Your task to perform on an android device: turn off smart reply in the gmail app Image 0: 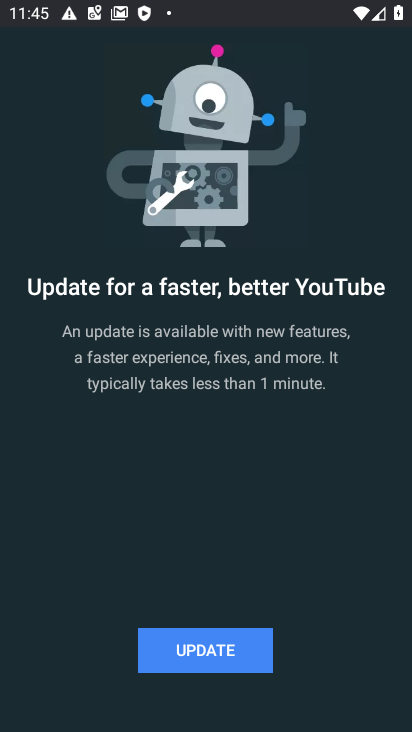
Step 0: press home button
Your task to perform on an android device: turn off smart reply in the gmail app Image 1: 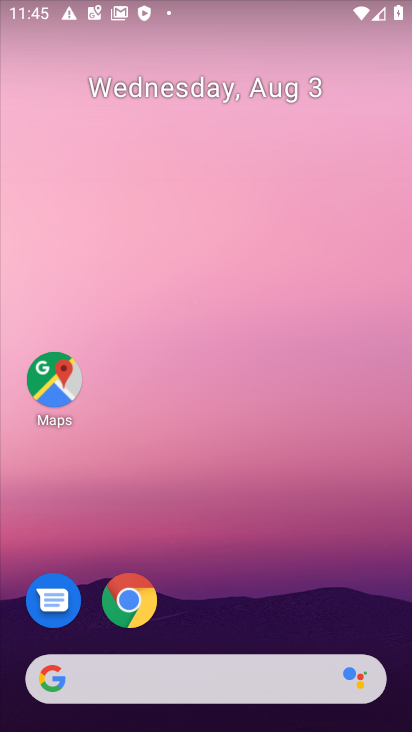
Step 1: drag from (171, 673) to (254, 313)
Your task to perform on an android device: turn off smart reply in the gmail app Image 2: 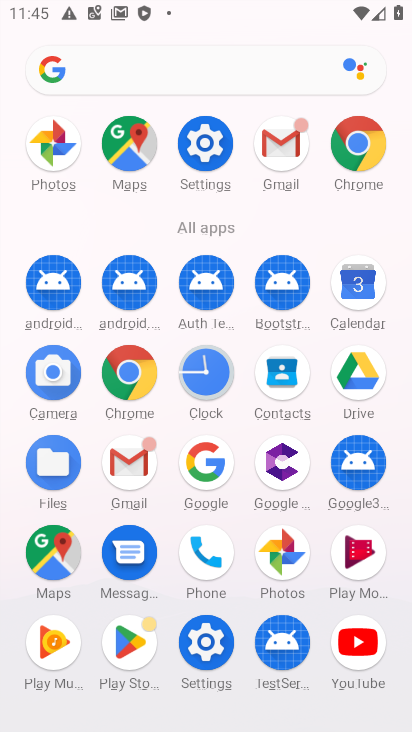
Step 2: click (283, 149)
Your task to perform on an android device: turn off smart reply in the gmail app Image 3: 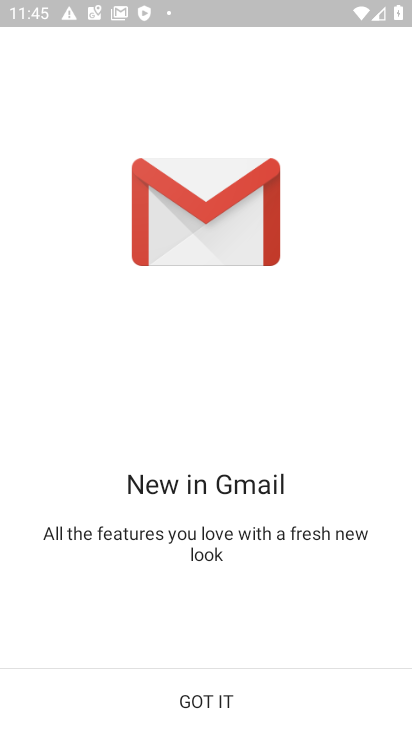
Step 3: click (198, 693)
Your task to perform on an android device: turn off smart reply in the gmail app Image 4: 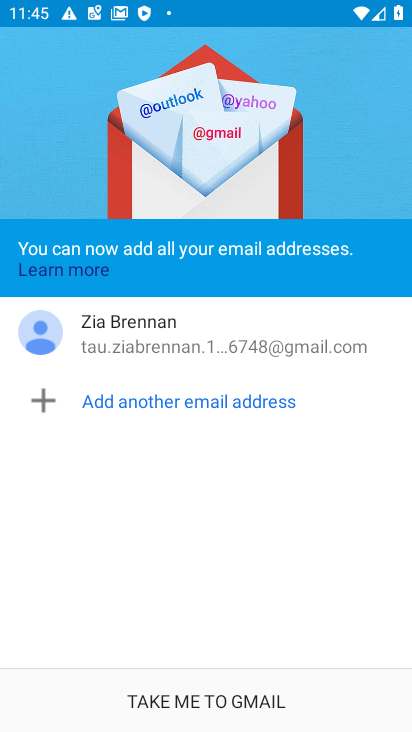
Step 4: click (188, 703)
Your task to perform on an android device: turn off smart reply in the gmail app Image 5: 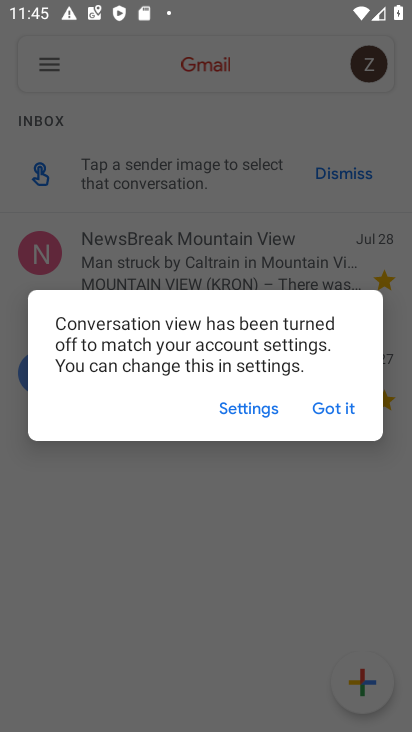
Step 5: click (312, 407)
Your task to perform on an android device: turn off smart reply in the gmail app Image 6: 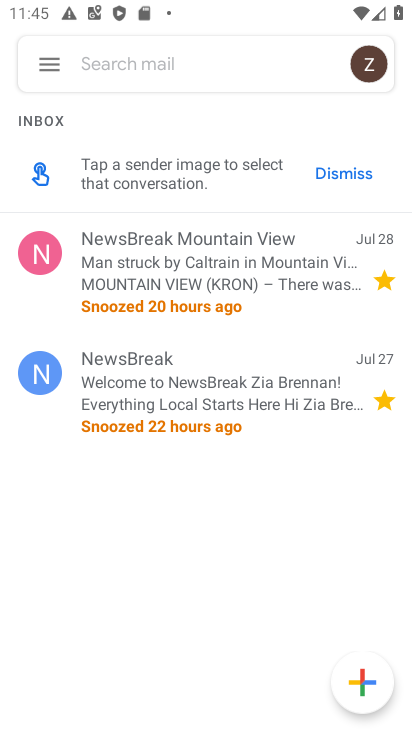
Step 6: click (41, 67)
Your task to perform on an android device: turn off smart reply in the gmail app Image 7: 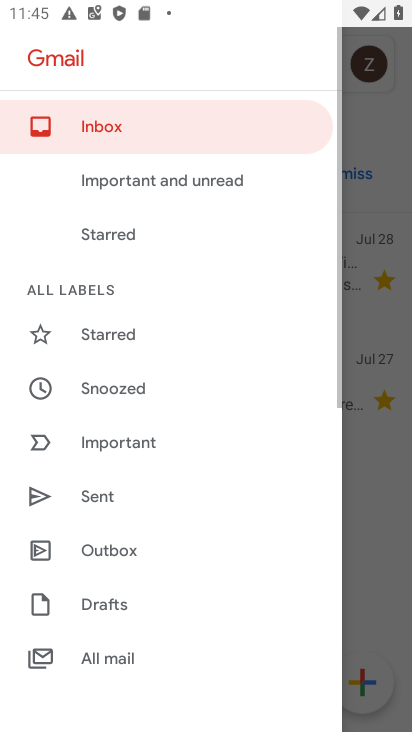
Step 7: drag from (184, 617) to (271, 143)
Your task to perform on an android device: turn off smart reply in the gmail app Image 8: 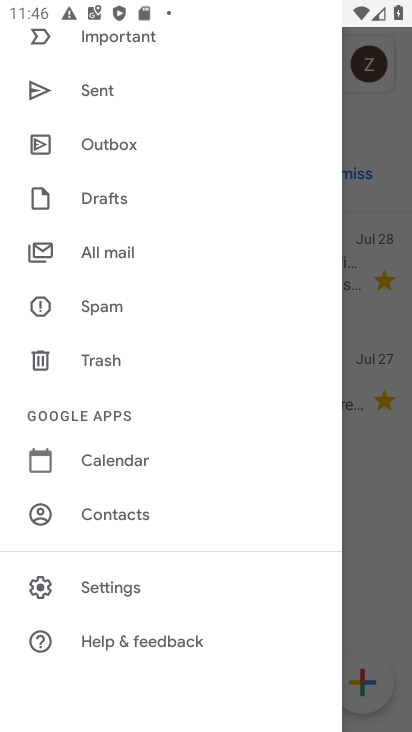
Step 8: click (134, 587)
Your task to perform on an android device: turn off smart reply in the gmail app Image 9: 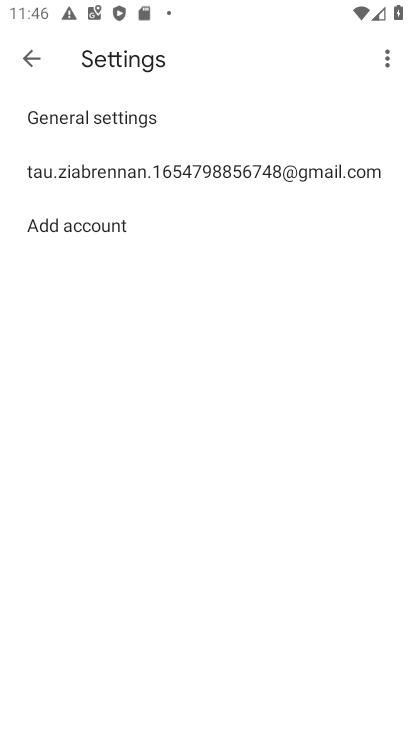
Step 9: click (279, 167)
Your task to perform on an android device: turn off smart reply in the gmail app Image 10: 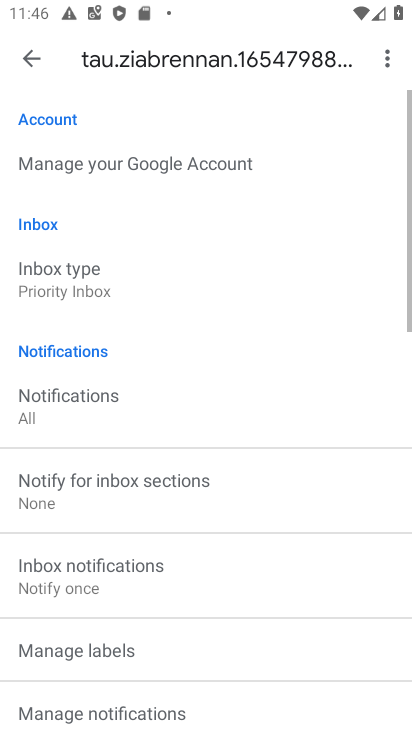
Step 10: drag from (188, 666) to (289, 132)
Your task to perform on an android device: turn off smart reply in the gmail app Image 11: 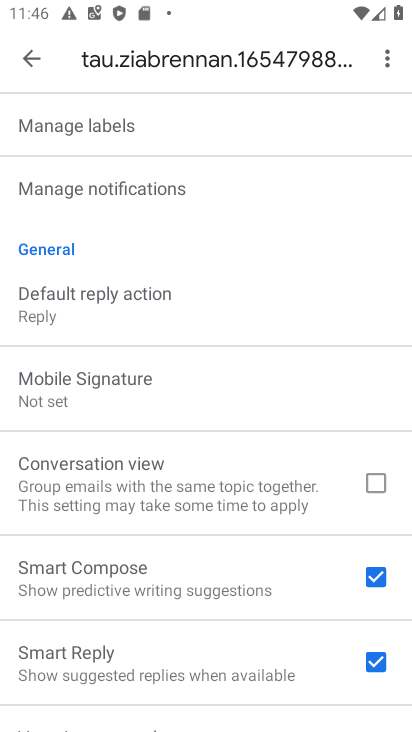
Step 11: drag from (222, 638) to (319, 190)
Your task to perform on an android device: turn off smart reply in the gmail app Image 12: 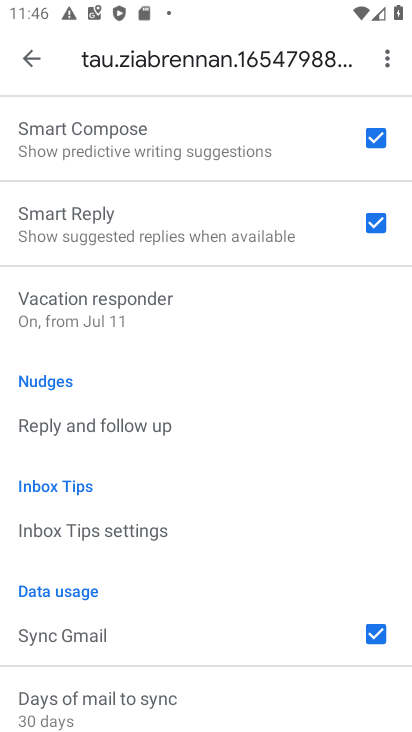
Step 12: click (375, 221)
Your task to perform on an android device: turn off smart reply in the gmail app Image 13: 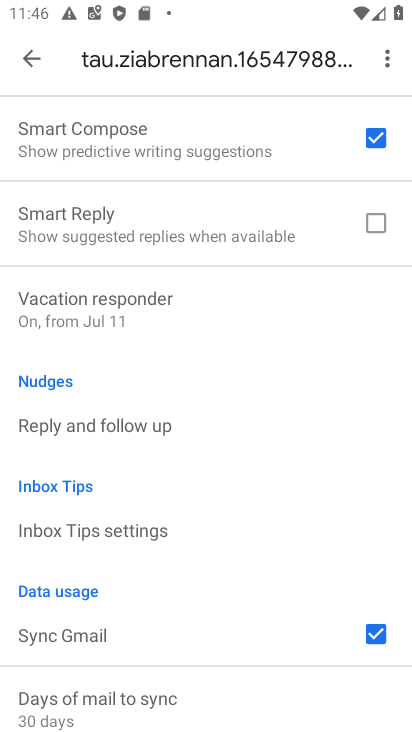
Step 13: task complete